Your task to perform on an android device: turn on notifications settings in the gmail app Image 0: 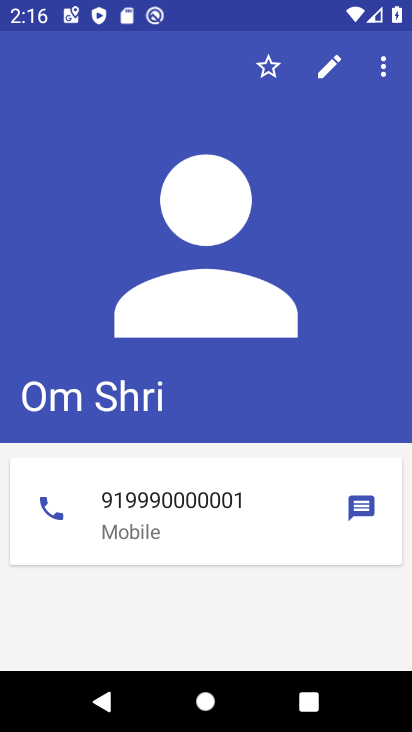
Step 0: press home button
Your task to perform on an android device: turn on notifications settings in the gmail app Image 1: 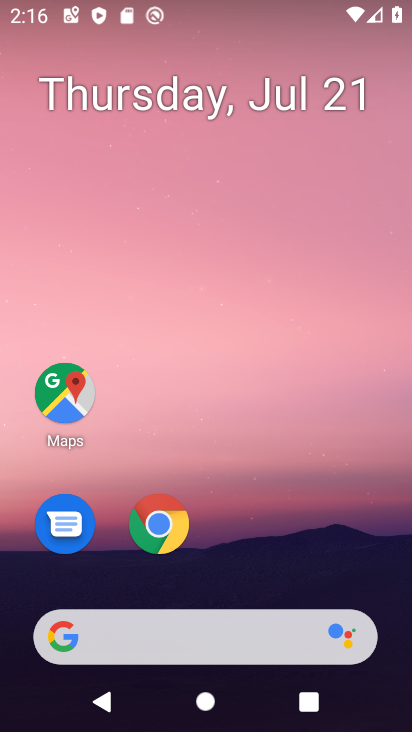
Step 1: drag from (276, 553) to (296, 66)
Your task to perform on an android device: turn on notifications settings in the gmail app Image 2: 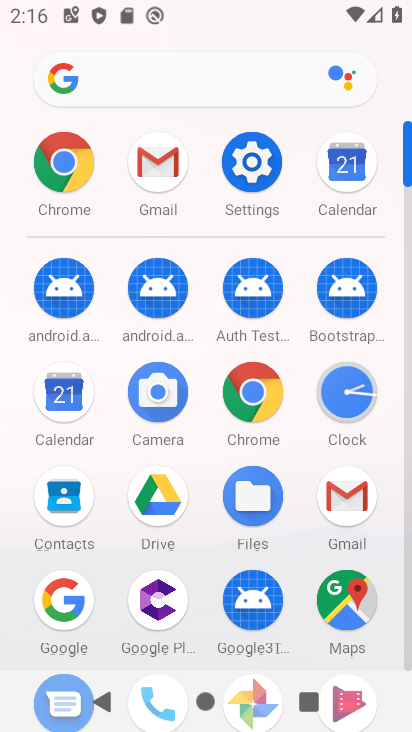
Step 2: click (163, 163)
Your task to perform on an android device: turn on notifications settings in the gmail app Image 3: 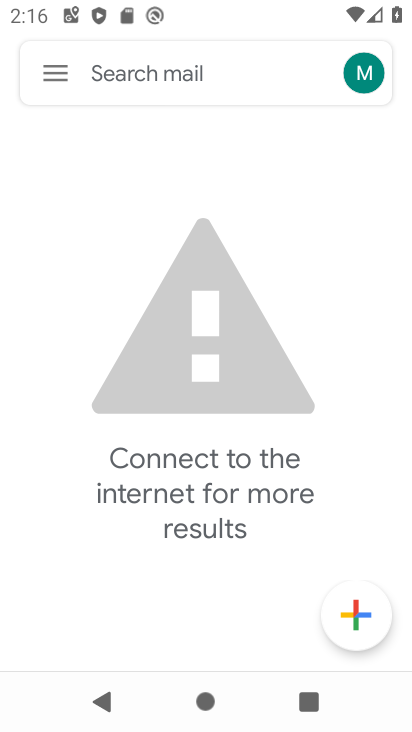
Step 3: click (64, 73)
Your task to perform on an android device: turn on notifications settings in the gmail app Image 4: 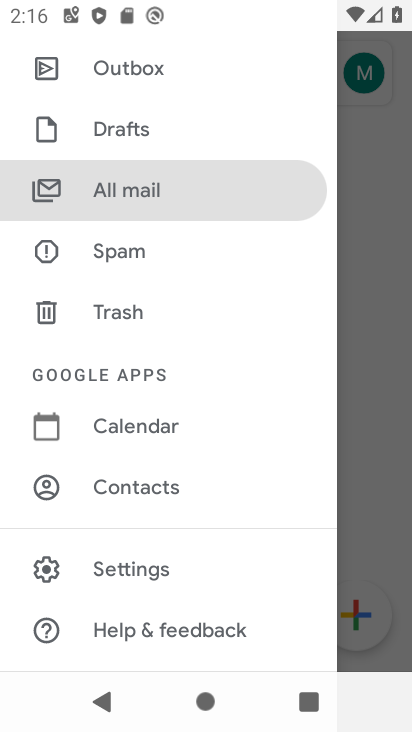
Step 4: click (158, 562)
Your task to perform on an android device: turn on notifications settings in the gmail app Image 5: 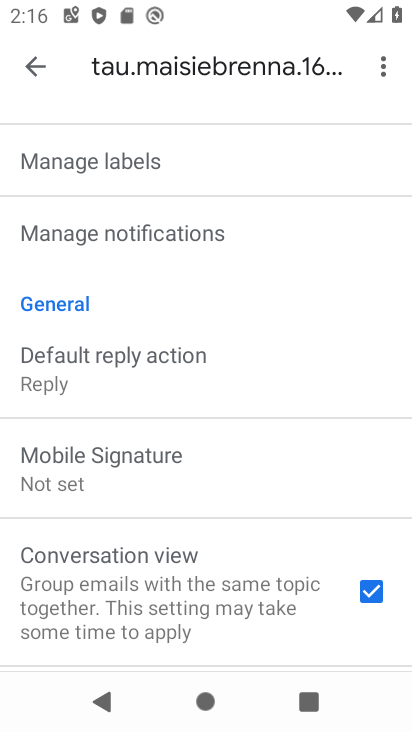
Step 5: click (223, 233)
Your task to perform on an android device: turn on notifications settings in the gmail app Image 6: 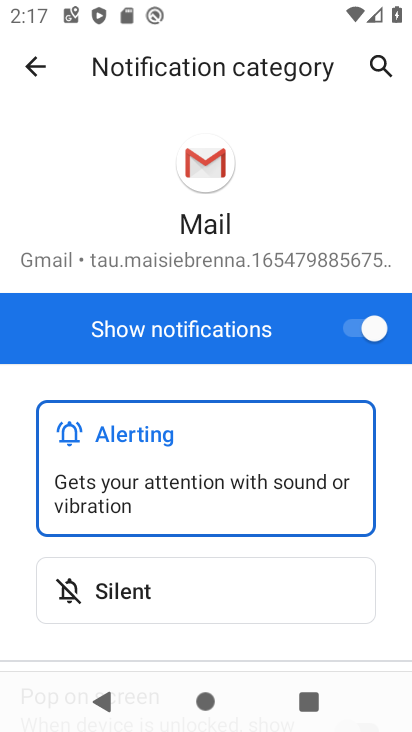
Step 6: task complete